Your task to perform on an android device: Go to Android settings Image 0: 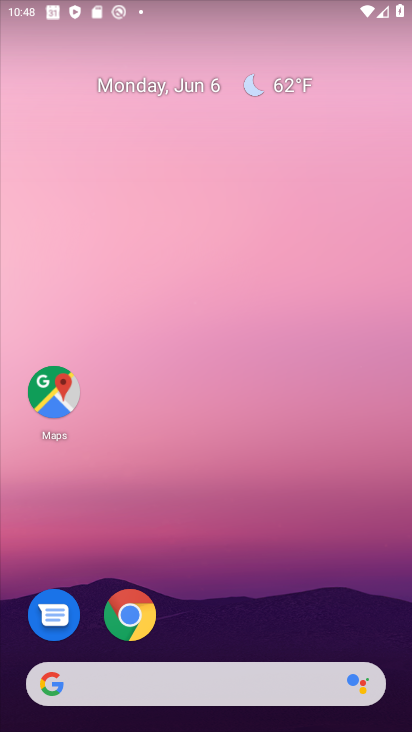
Step 0: drag from (254, 654) to (251, 183)
Your task to perform on an android device: Go to Android settings Image 1: 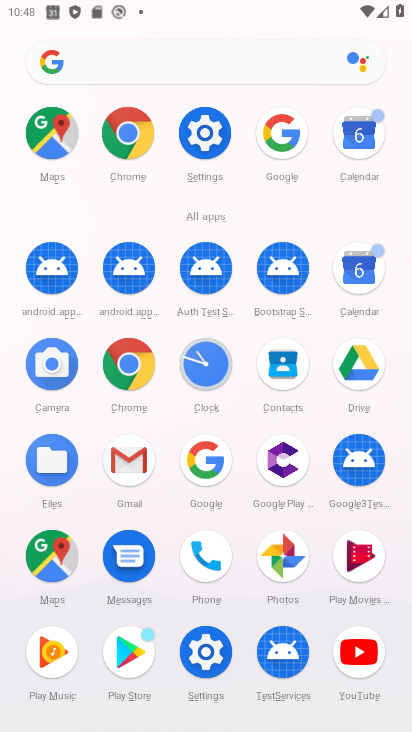
Step 1: click (202, 650)
Your task to perform on an android device: Go to Android settings Image 2: 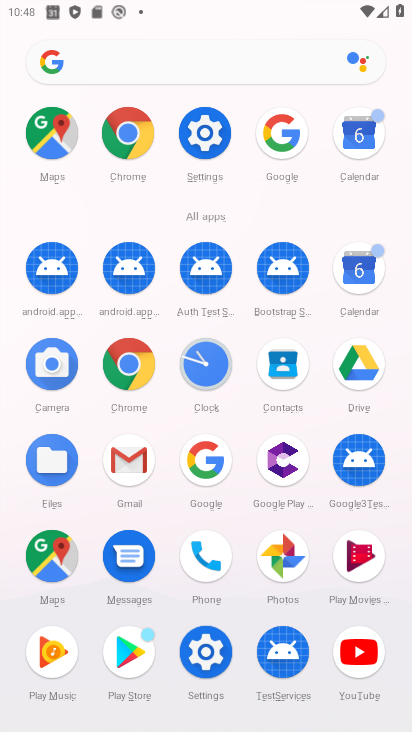
Step 2: click (202, 650)
Your task to perform on an android device: Go to Android settings Image 3: 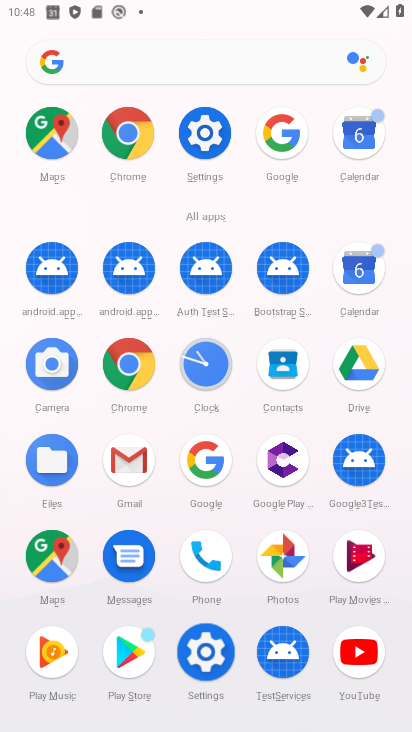
Step 3: click (203, 649)
Your task to perform on an android device: Go to Android settings Image 4: 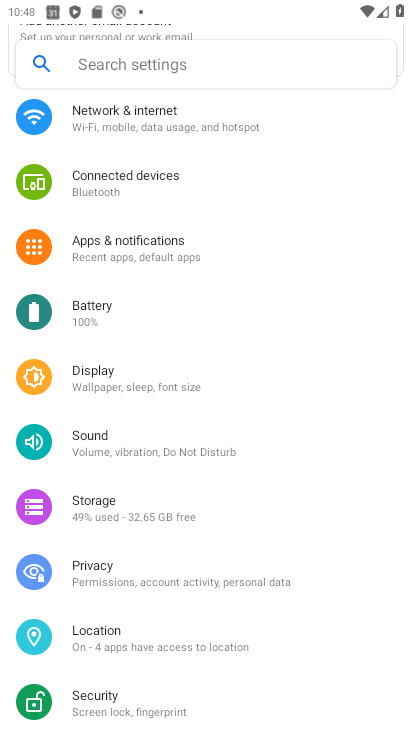
Step 4: click (203, 649)
Your task to perform on an android device: Go to Android settings Image 5: 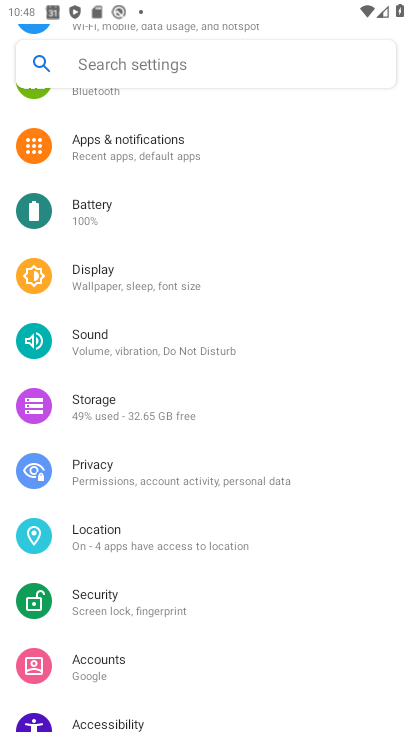
Step 5: click (202, 649)
Your task to perform on an android device: Go to Android settings Image 6: 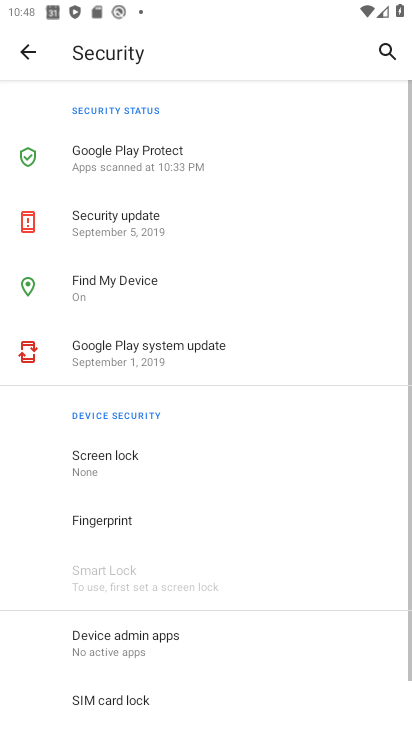
Step 6: click (17, 60)
Your task to perform on an android device: Go to Android settings Image 7: 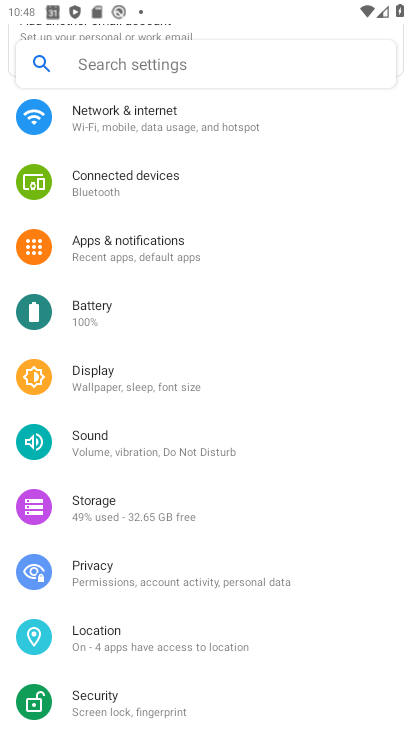
Step 7: drag from (185, 605) to (194, 183)
Your task to perform on an android device: Go to Android settings Image 8: 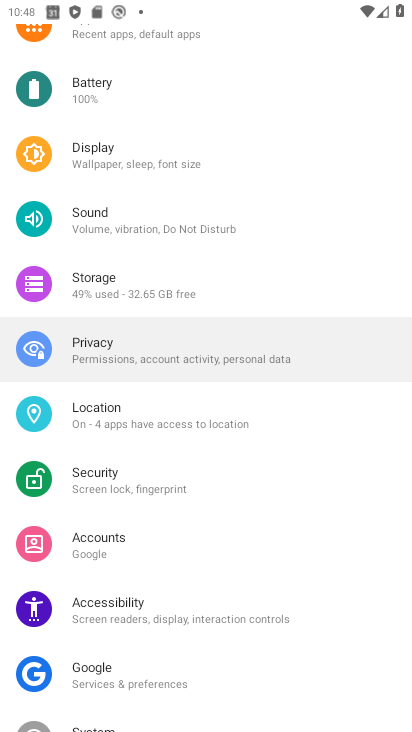
Step 8: drag from (238, 552) to (224, 194)
Your task to perform on an android device: Go to Android settings Image 9: 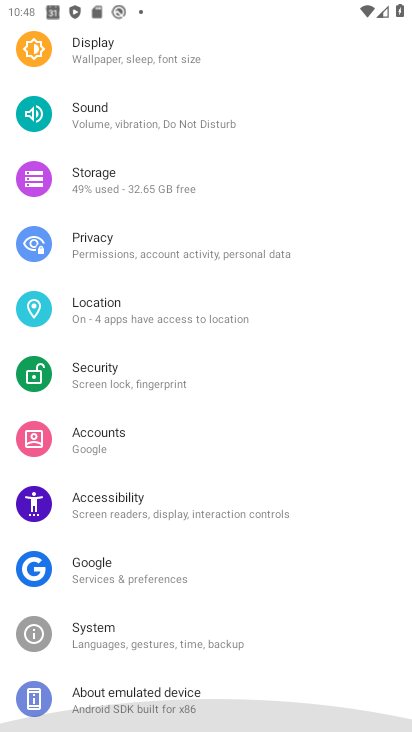
Step 9: click (228, 171)
Your task to perform on an android device: Go to Android settings Image 10: 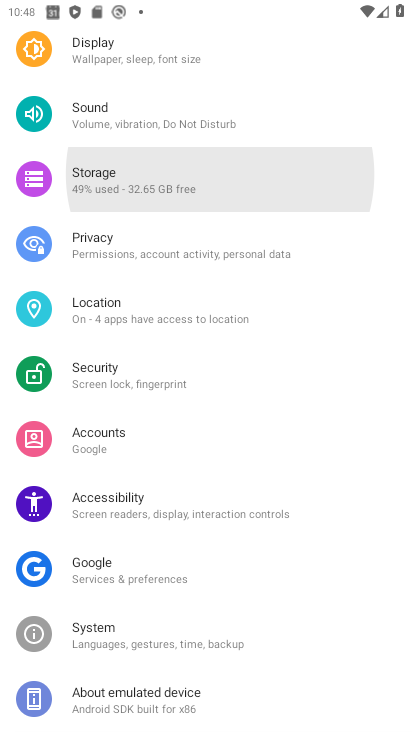
Step 10: drag from (228, 517) to (226, 300)
Your task to perform on an android device: Go to Android settings Image 11: 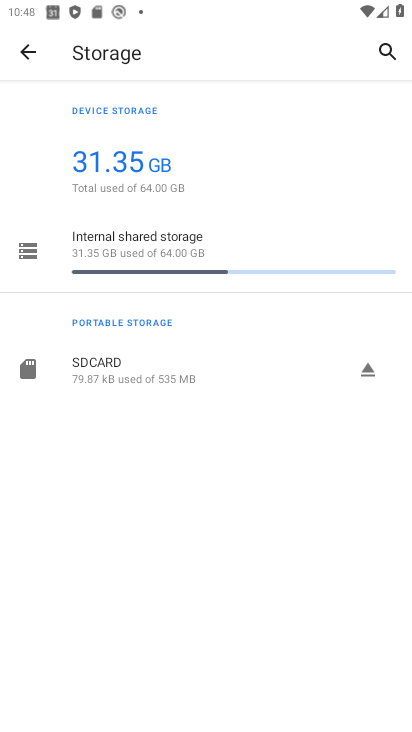
Step 11: click (142, 695)
Your task to perform on an android device: Go to Android settings Image 12: 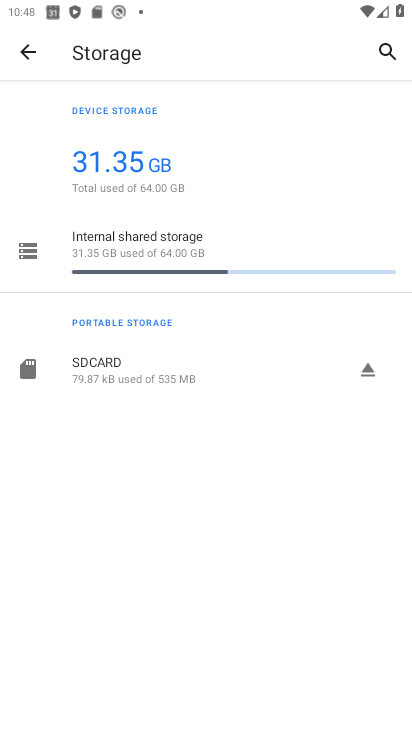
Step 12: click (142, 695)
Your task to perform on an android device: Go to Android settings Image 13: 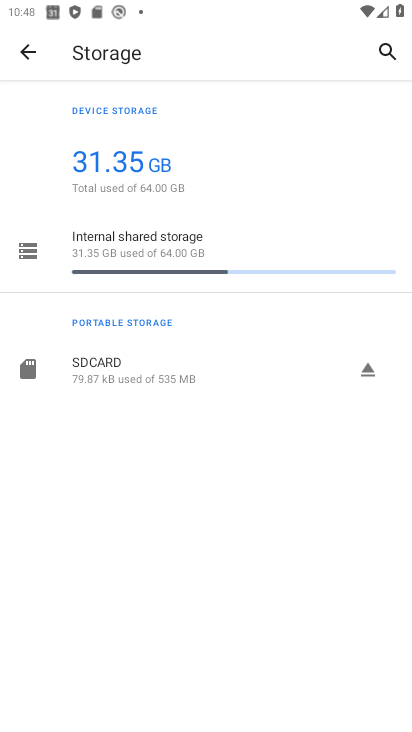
Step 13: click (23, 35)
Your task to perform on an android device: Go to Android settings Image 14: 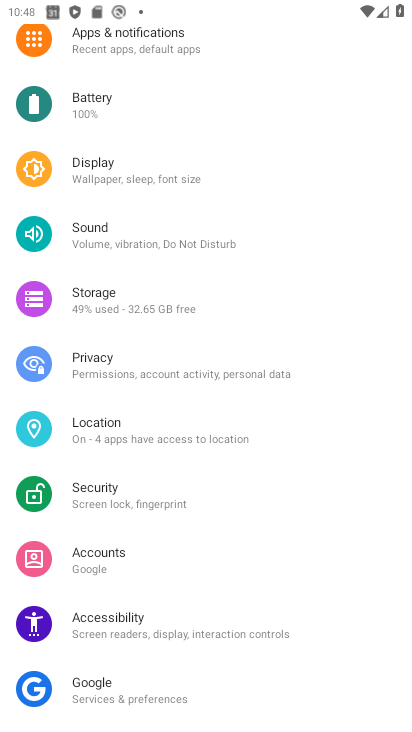
Step 14: click (125, 686)
Your task to perform on an android device: Go to Android settings Image 15: 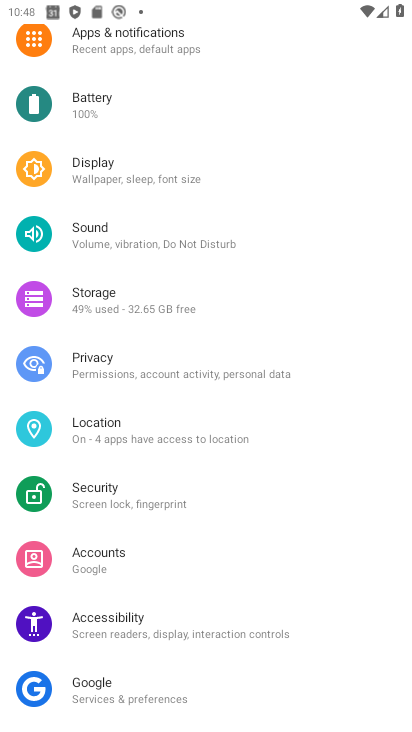
Step 15: drag from (154, 649) to (104, 274)
Your task to perform on an android device: Go to Android settings Image 16: 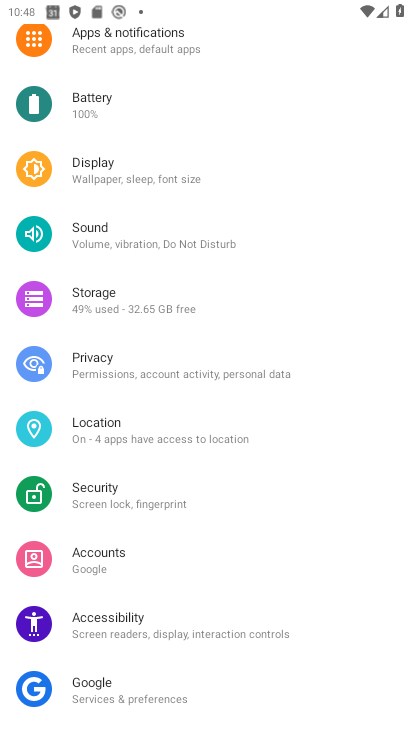
Step 16: drag from (137, 454) to (104, 138)
Your task to perform on an android device: Go to Android settings Image 17: 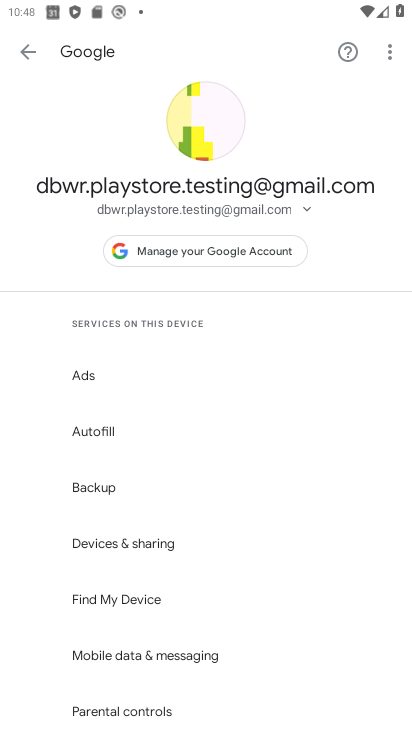
Step 17: click (33, 47)
Your task to perform on an android device: Go to Android settings Image 18: 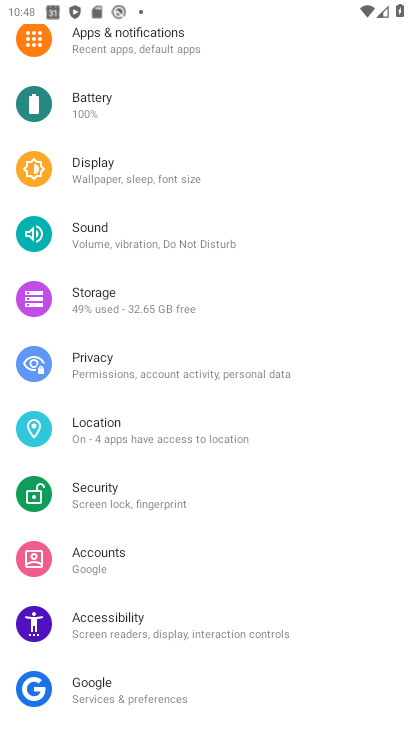
Step 18: drag from (154, 586) to (105, 42)
Your task to perform on an android device: Go to Android settings Image 19: 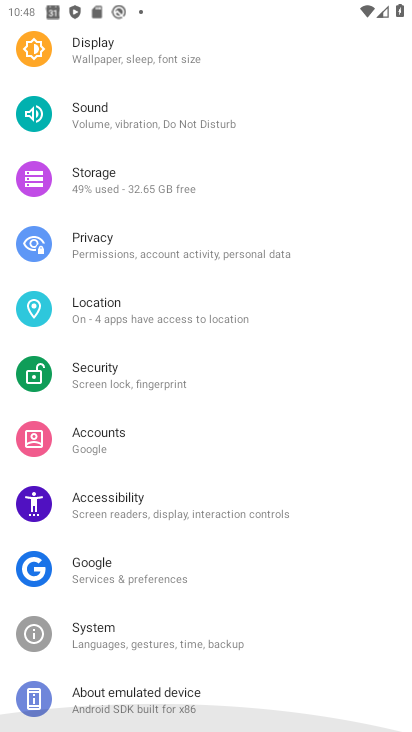
Step 19: drag from (127, 492) to (85, 227)
Your task to perform on an android device: Go to Android settings Image 20: 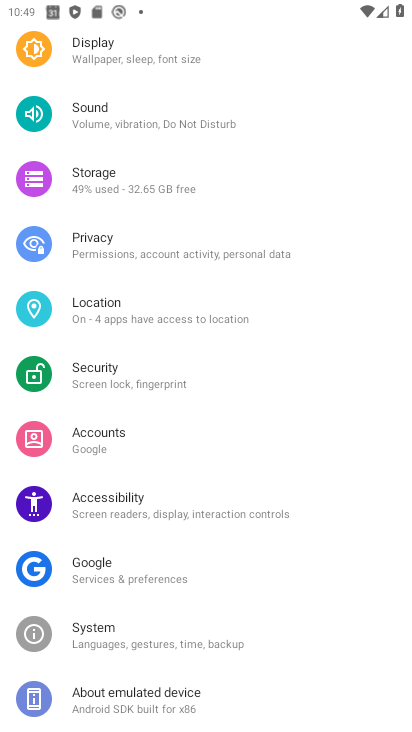
Step 20: click (124, 690)
Your task to perform on an android device: Go to Android settings Image 21: 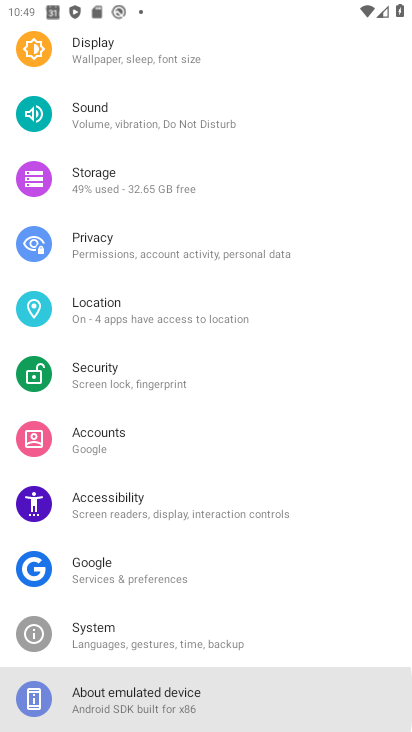
Step 21: click (124, 689)
Your task to perform on an android device: Go to Android settings Image 22: 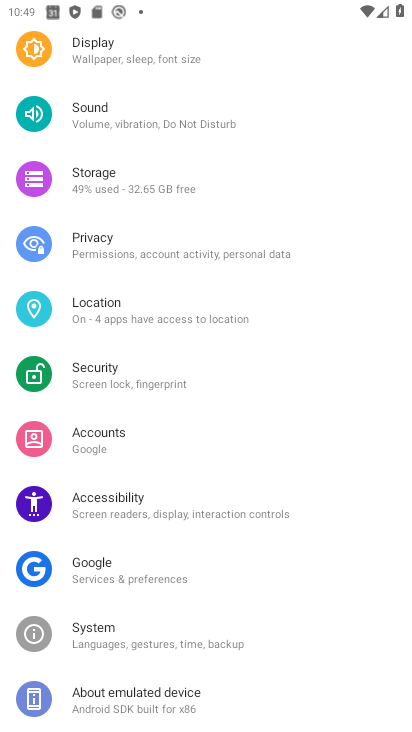
Step 22: click (123, 688)
Your task to perform on an android device: Go to Android settings Image 23: 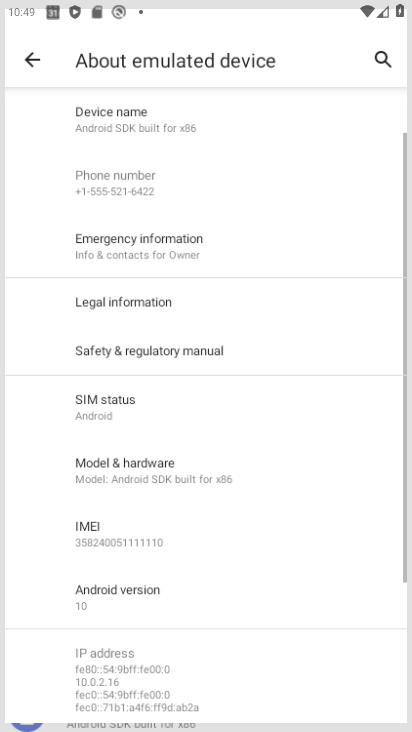
Step 23: click (123, 688)
Your task to perform on an android device: Go to Android settings Image 24: 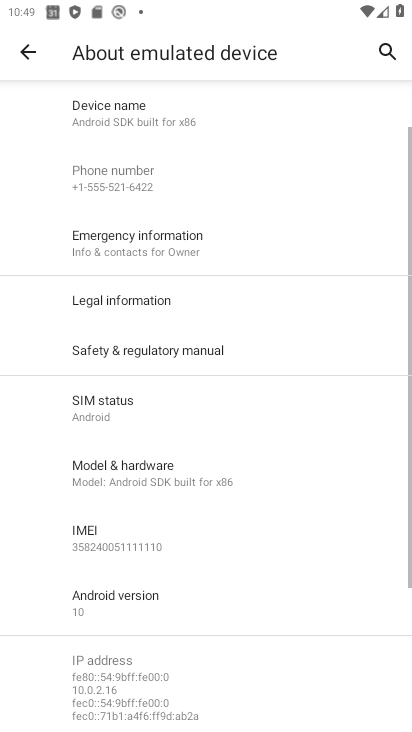
Step 24: task complete